Your task to perform on an android device: Go to sound settings Image 0: 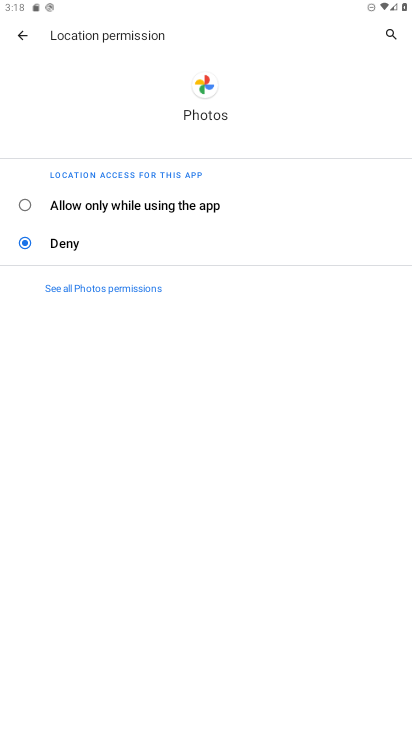
Step 0: press home button
Your task to perform on an android device: Go to sound settings Image 1: 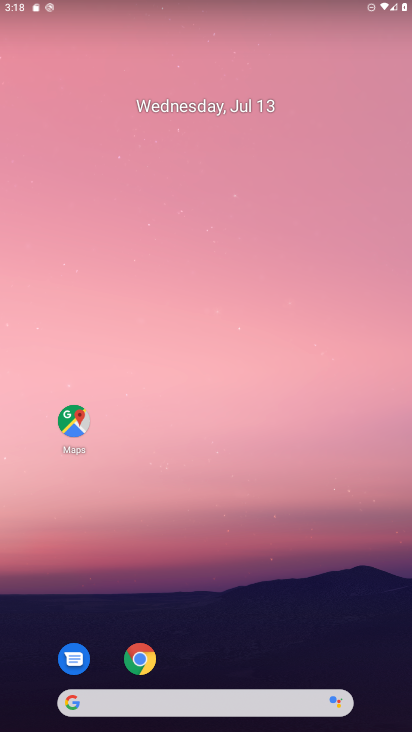
Step 1: drag from (386, 660) to (319, 154)
Your task to perform on an android device: Go to sound settings Image 2: 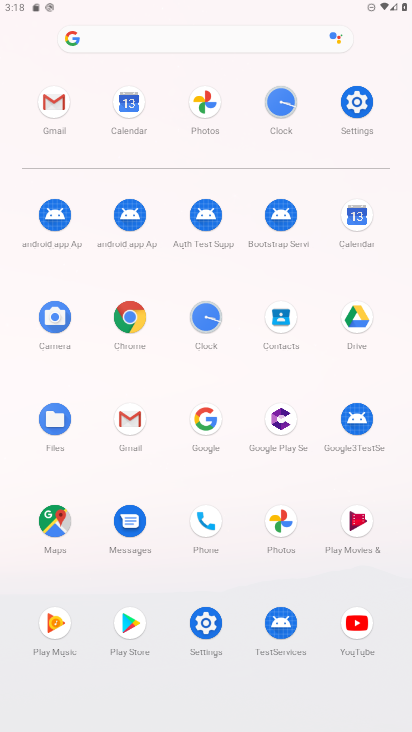
Step 2: click (206, 621)
Your task to perform on an android device: Go to sound settings Image 3: 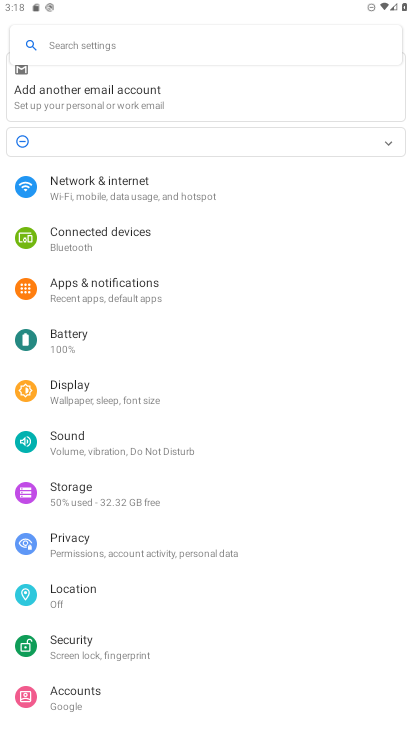
Step 3: click (78, 445)
Your task to perform on an android device: Go to sound settings Image 4: 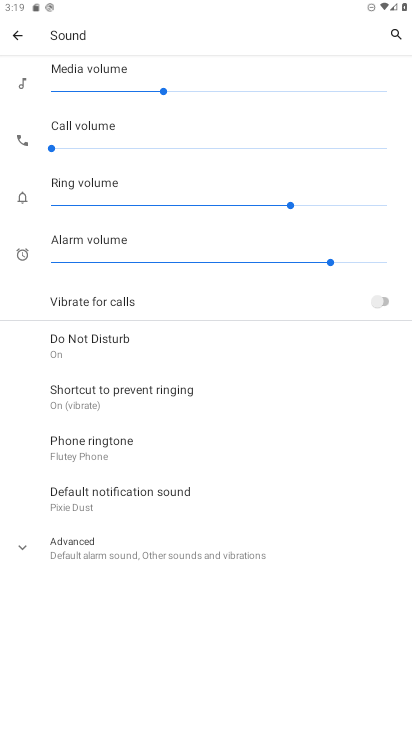
Step 4: click (25, 550)
Your task to perform on an android device: Go to sound settings Image 5: 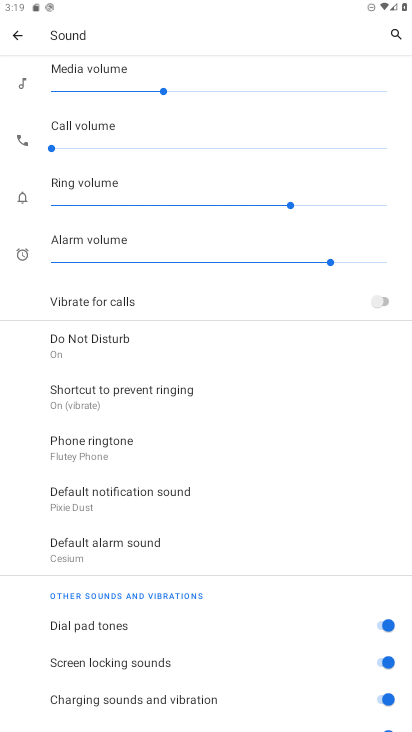
Step 5: task complete